Your task to perform on an android device: Open Youtube and go to the subscriptions tab Image 0: 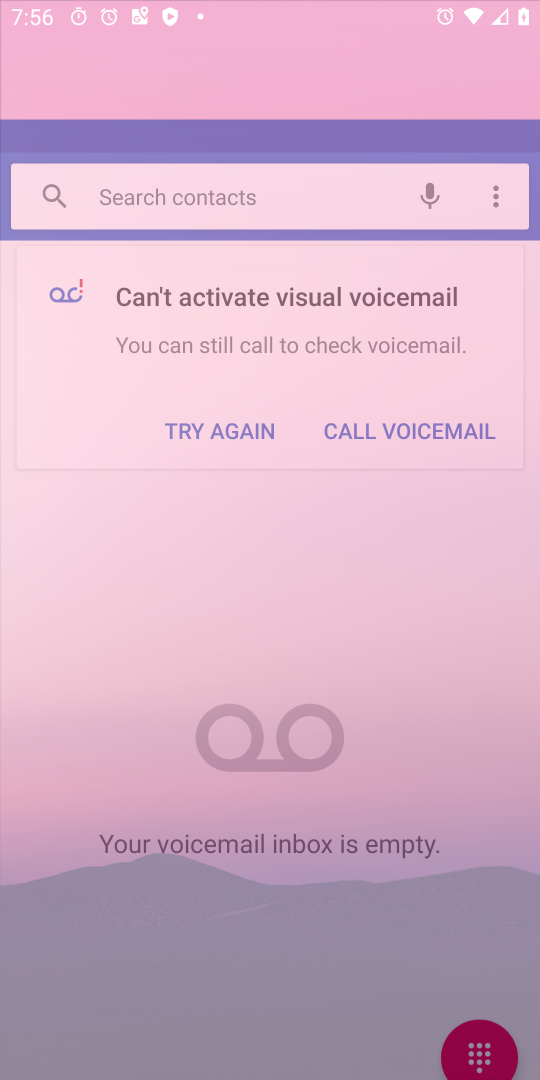
Step 0: press home button
Your task to perform on an android device: Open Youtube and go to the subscriptions tab Image 1: 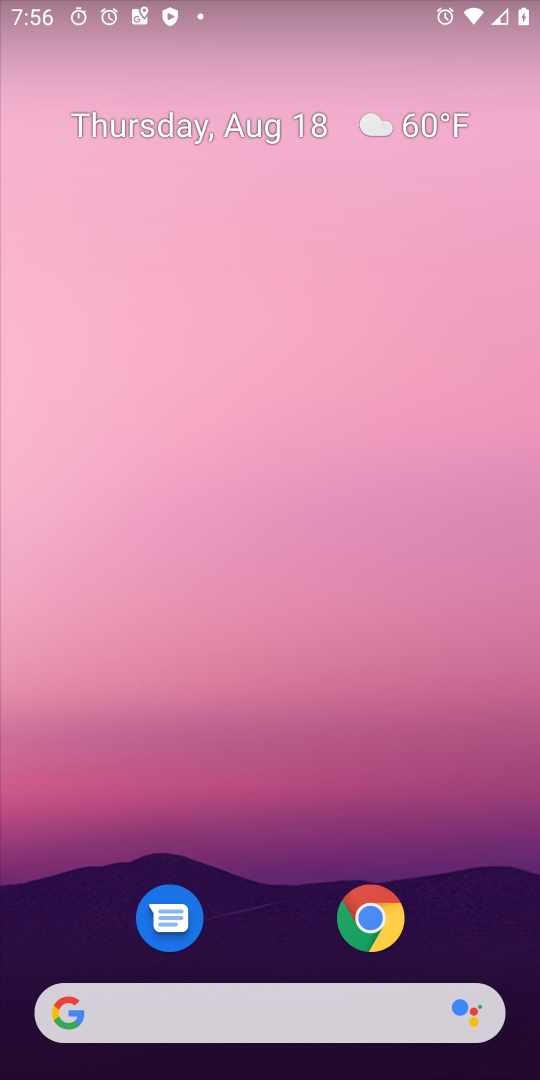
Step 1: drag from (275, 958) to (332, 38)
Your task to perform on an android device: Open Youtube and go to the subscriptions tab Image 2: 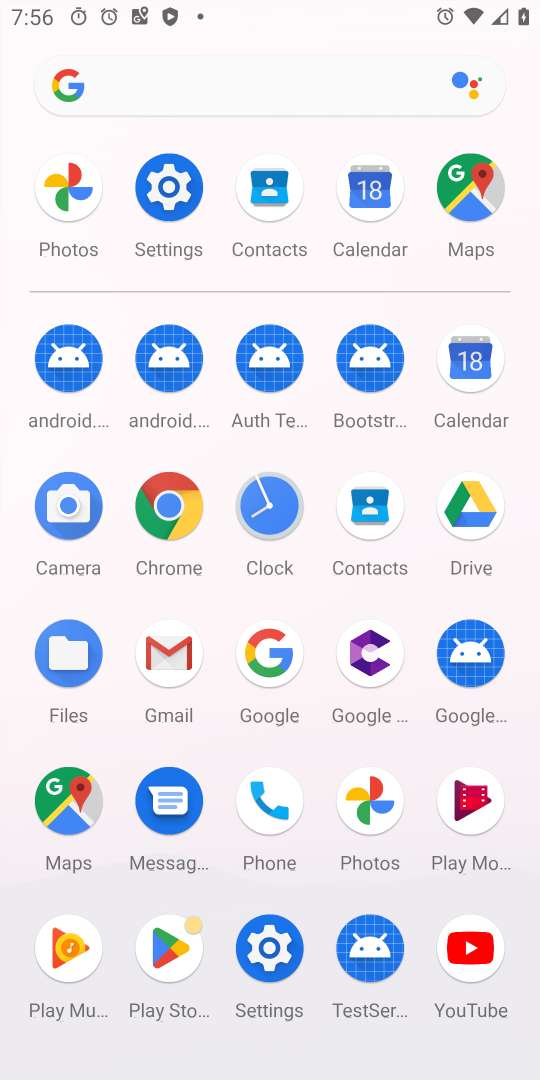
Step 2: click (465, 960)
Your task to perform on an android device: Open Youtube and go to the subscriptions tab Image 3: 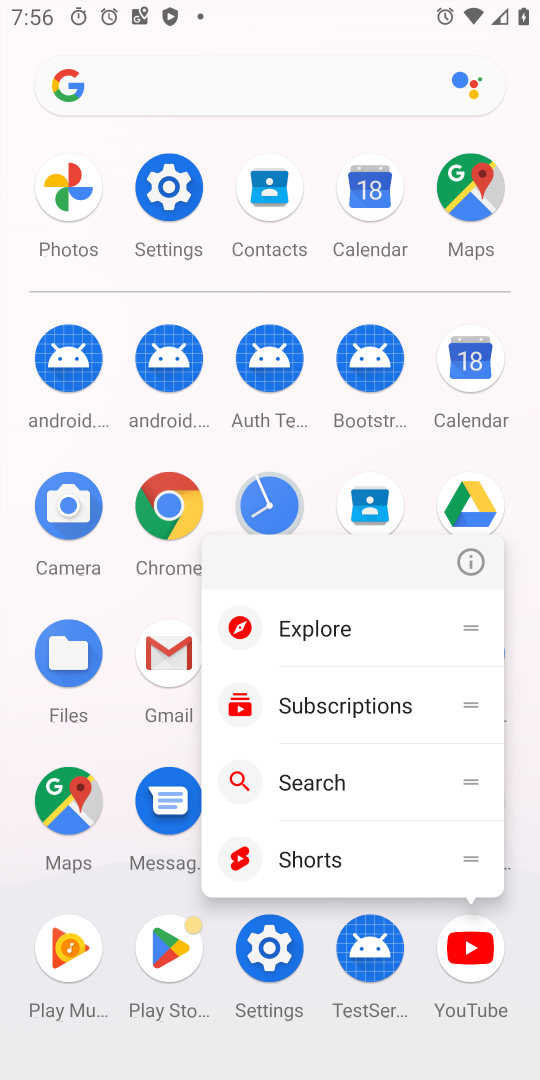
Step 3: click (465, 960)
Your task to perform on an android device: Open Youtube and go to the subscriptions tab Image 4: 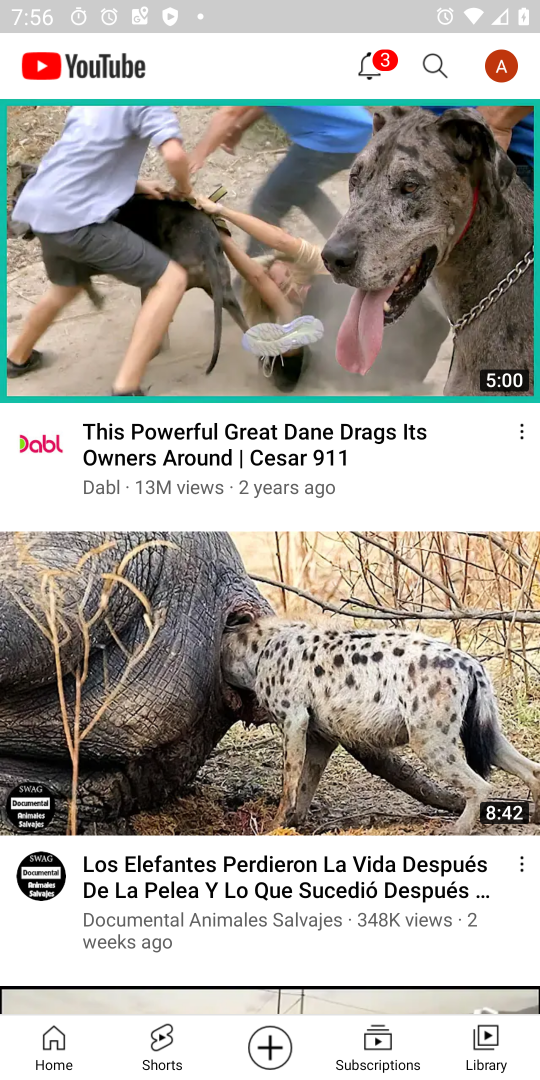
Step 4: click (386, 1042)
Your task to perform on an android device: Open Youtube and go to the subscriptions tab Image 5: 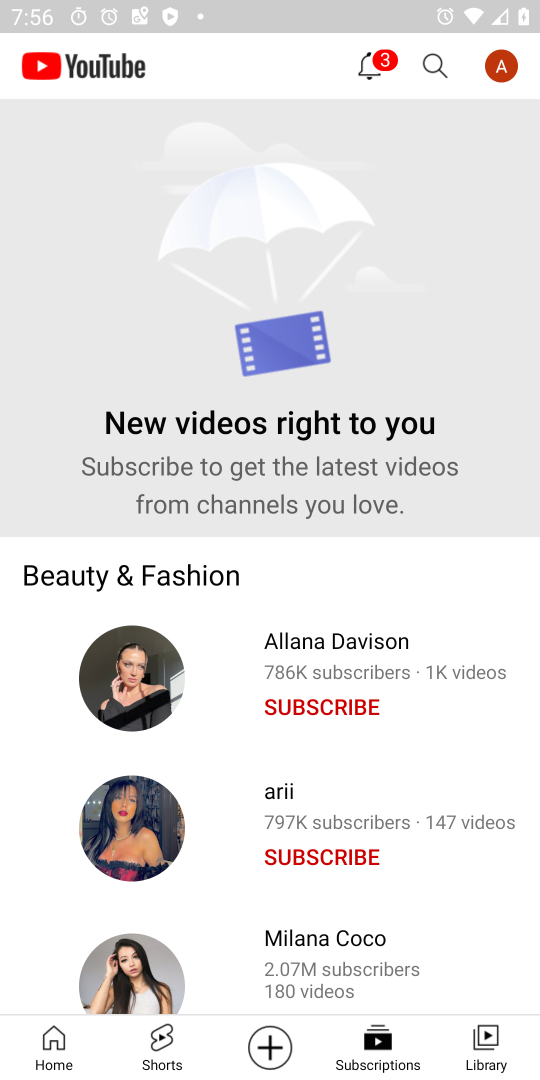
Step 5: task complete